Your task to perform on an android device: toggle pop-ups in chrome Image 0: 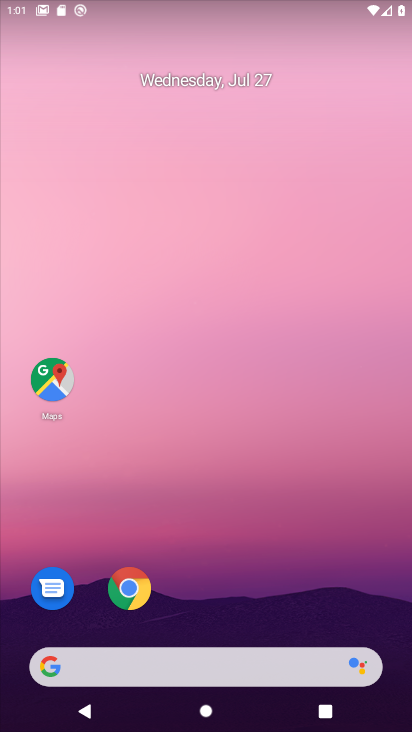
Step 0: click (136, 594)
Your task to perform on an android device: toggle pop-ups in chrome Image 1: 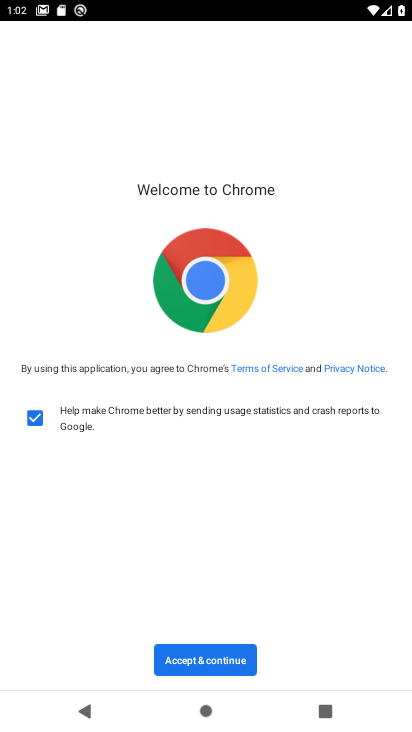
Step 1: click (218, 663)
Your task to perform on an android device: toggle pop-ups in chrome Image 2: 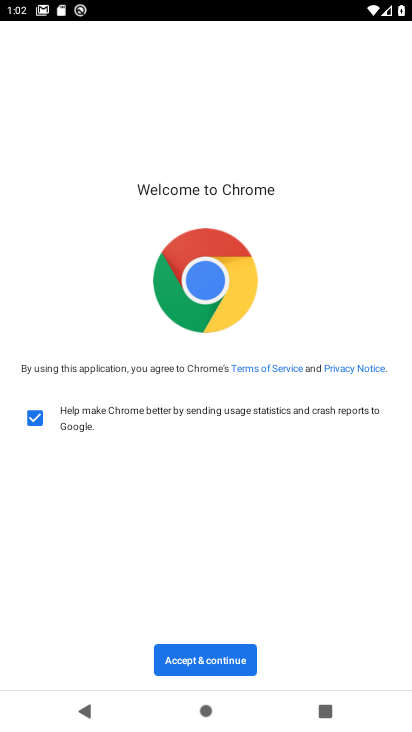
Step 2: click (218, 663)
Your task to perform on an android device: toggle pop-ups in chrome Image 3: 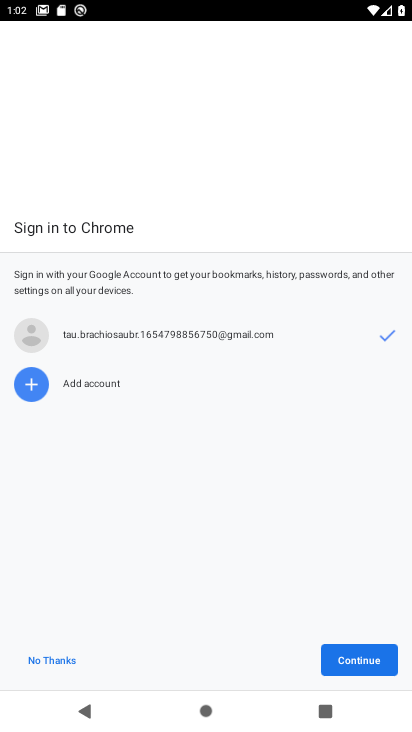
Step 3: click (369, 665)
Your task to perform on an android device: toggle pop-ups in chrome Image 4: 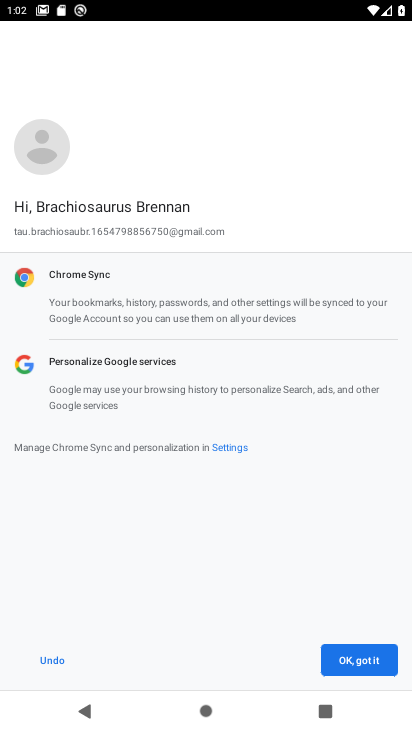
Step 4: click (369, 665)
Your task to perform on an android device: toggle pop-ups in chrome Image 5: 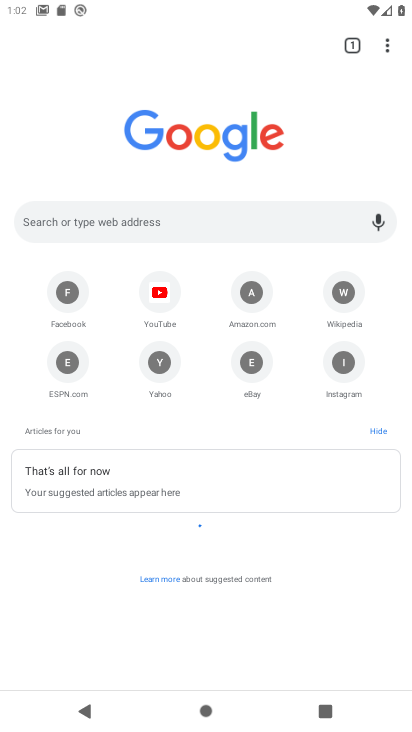
Step 5: click (388, 55)
Your task to perform on an android device: toggle pop-ups in chrome Image 6: 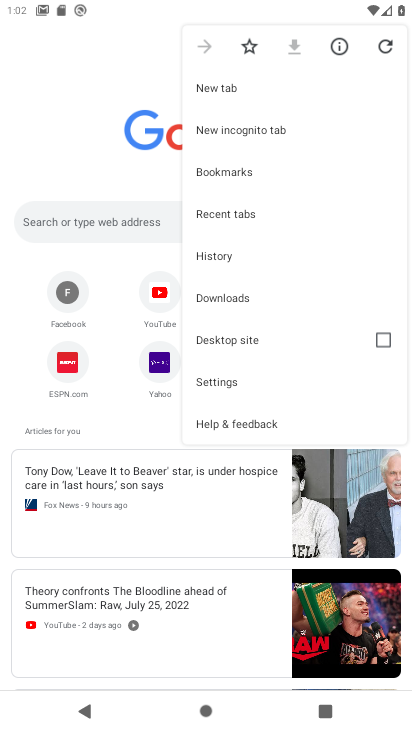
Step 6: click (256, 378)
Your task to perform on an android device: toggle pop-ups in chrome Image 7: 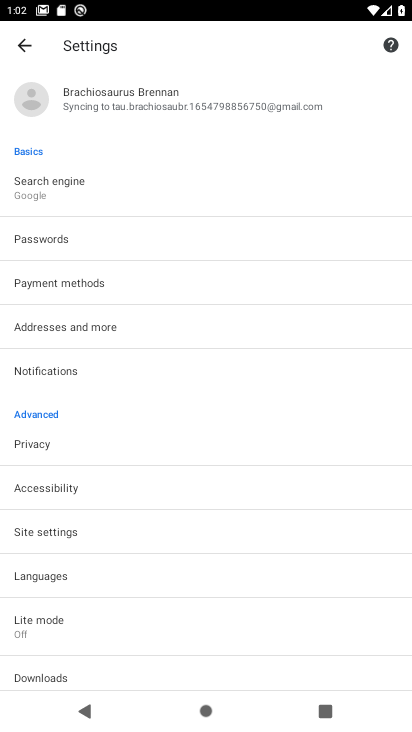
Step 7: click (114, 533)
Your task to perform on an android device: toggle pop-ups in chrome Image 8: 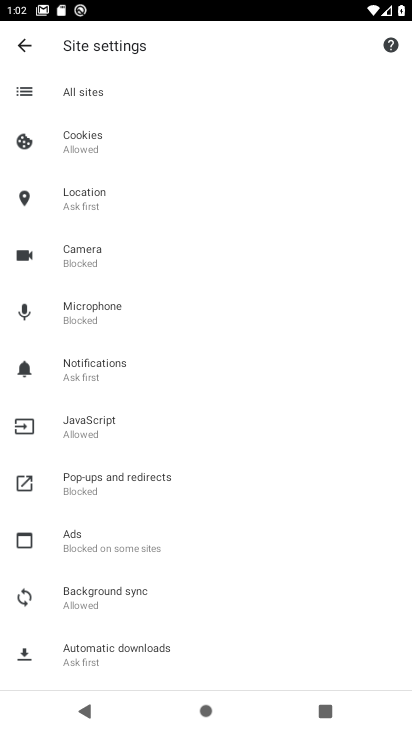
Step 8: click (133, 489)
Your task to perform on an android device: toggle pop-ups in chrome Image 9: 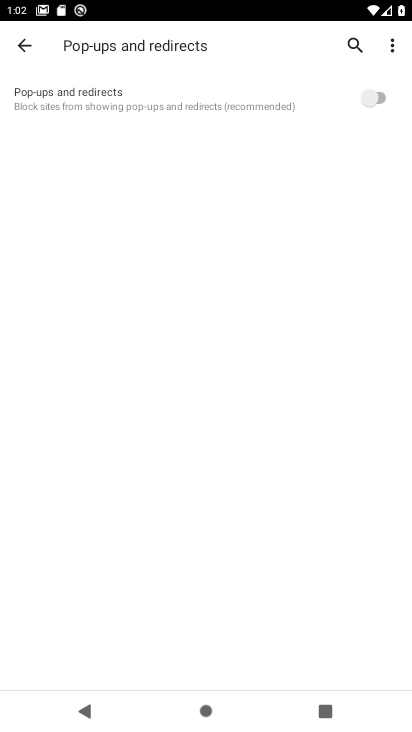
Step 9: click (385, 103)
Your task to perform on an android device: toggle pop-ups in chrome Image 10: 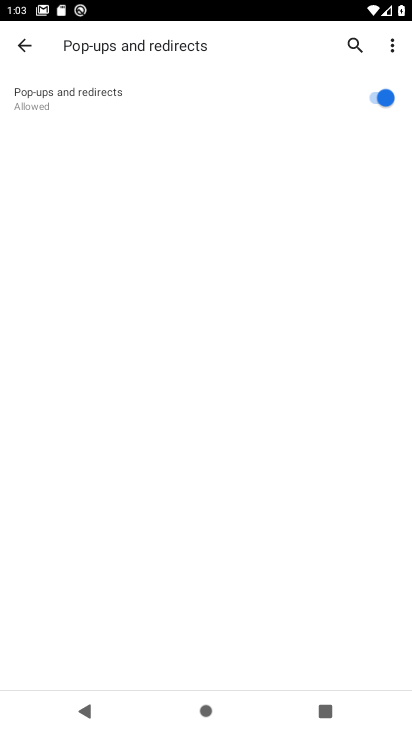
Step 10: task complete